Your task to perform on an android device: Set an alarm for 4pm Image 0: 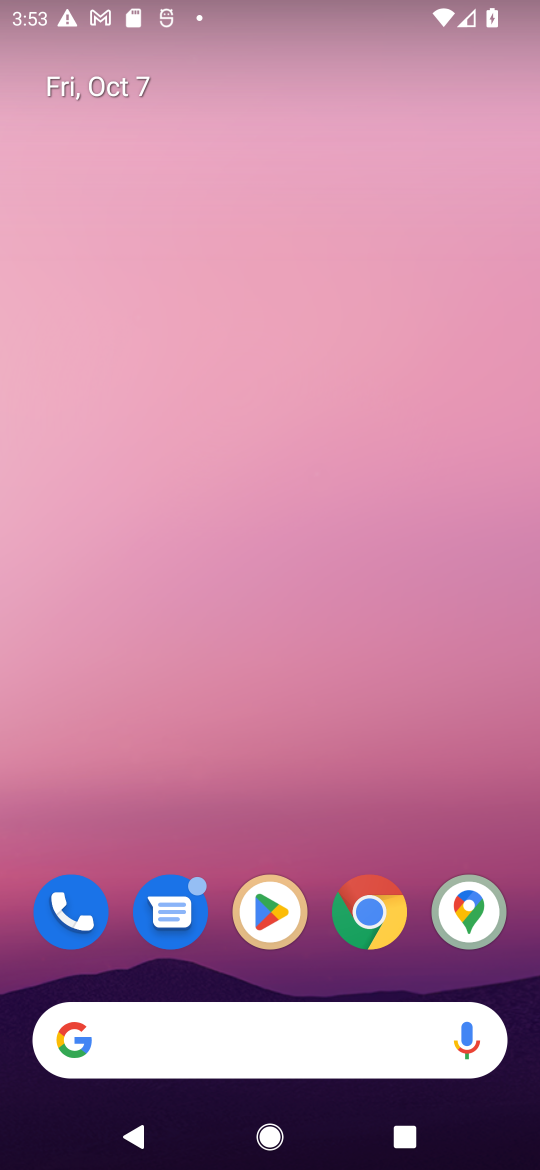
Step 0: drag from (269, 933) to (303, 328)
Your task to perform on an android device: Set an alarm for 4pm Image 1: 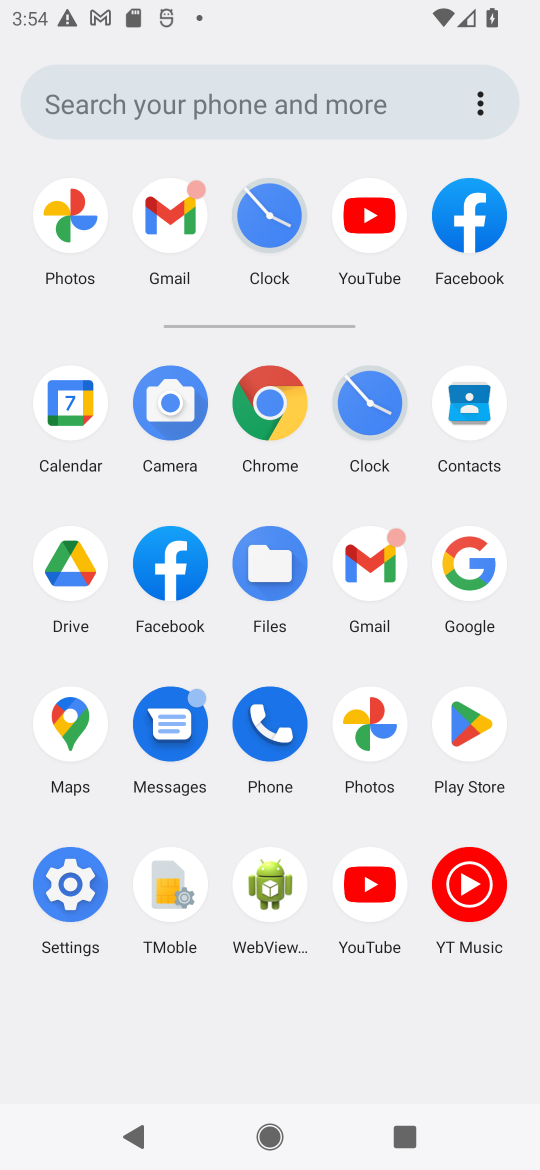
Step 1: click (361, 385)
Your task to perform on an android device: Set an alarm for 4pm Image 2: 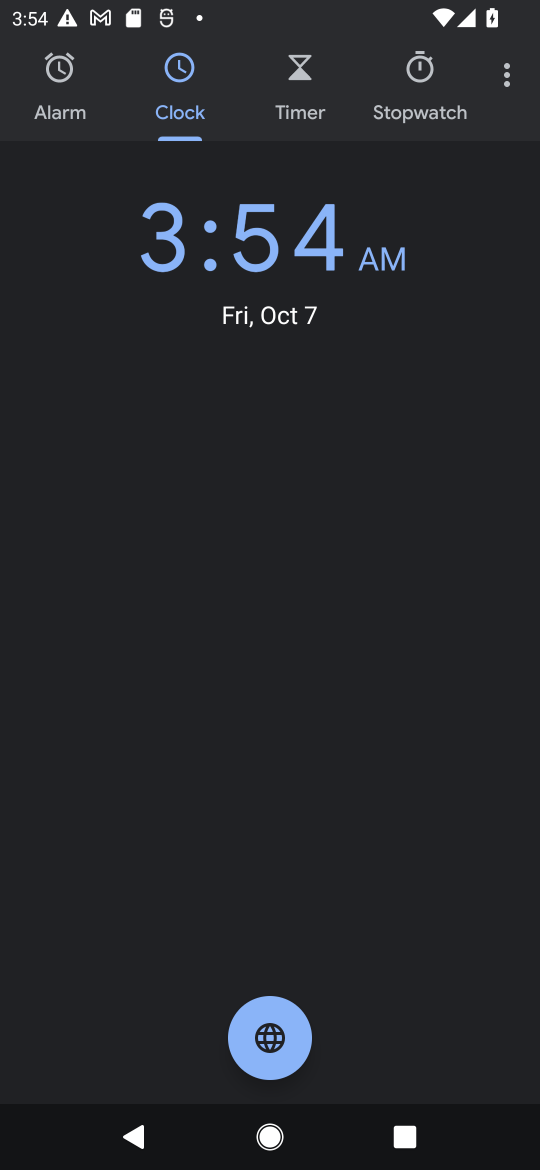
Step 2: click (52, 66)
Your task to perform on an android device: Set an alarm for 4pm Image 3: 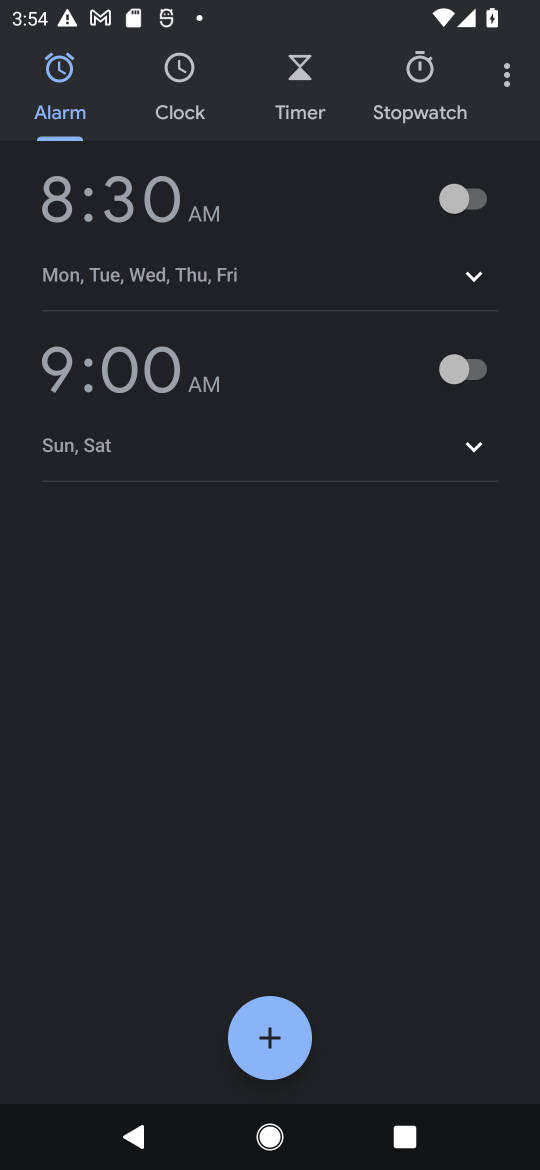
Step 3: click (270, 1019)
Your task to perform on an android device: Set an alarm for 4pm Image 4: 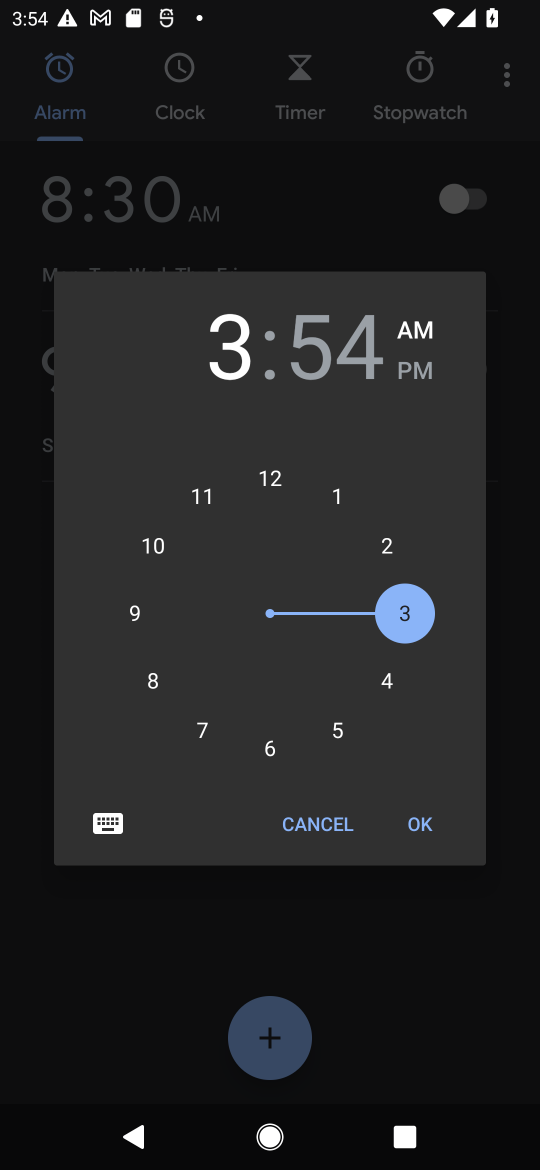
Step 4: click (378, 658)
Your task to perform on an android device: Set an alarm for 4pm Image 5: 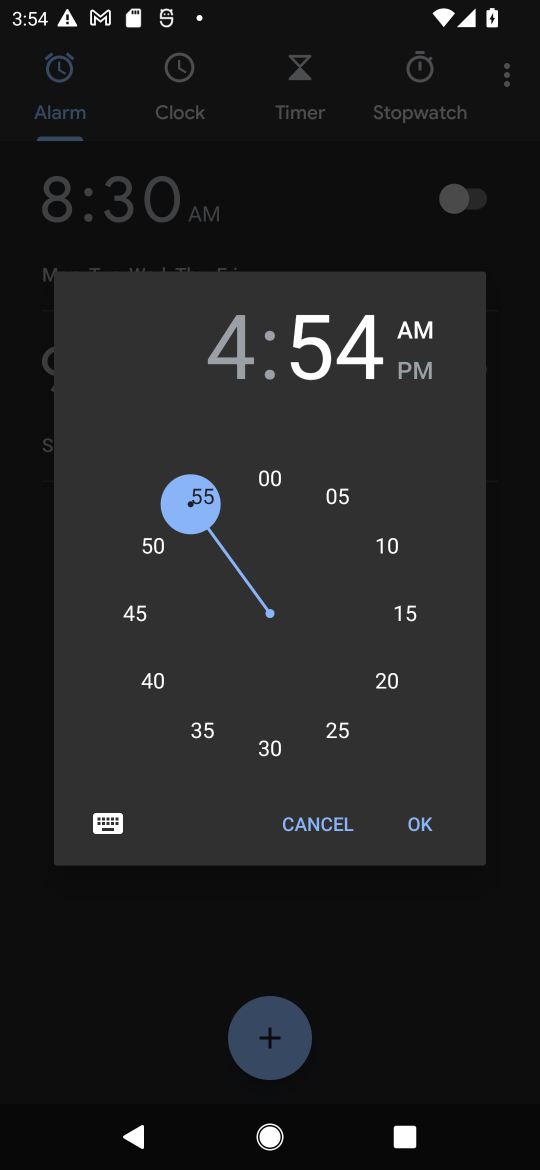
Step 5: click (423, 821)
Your task to perform on an android device: Set an alarm for 4pm Image 6: 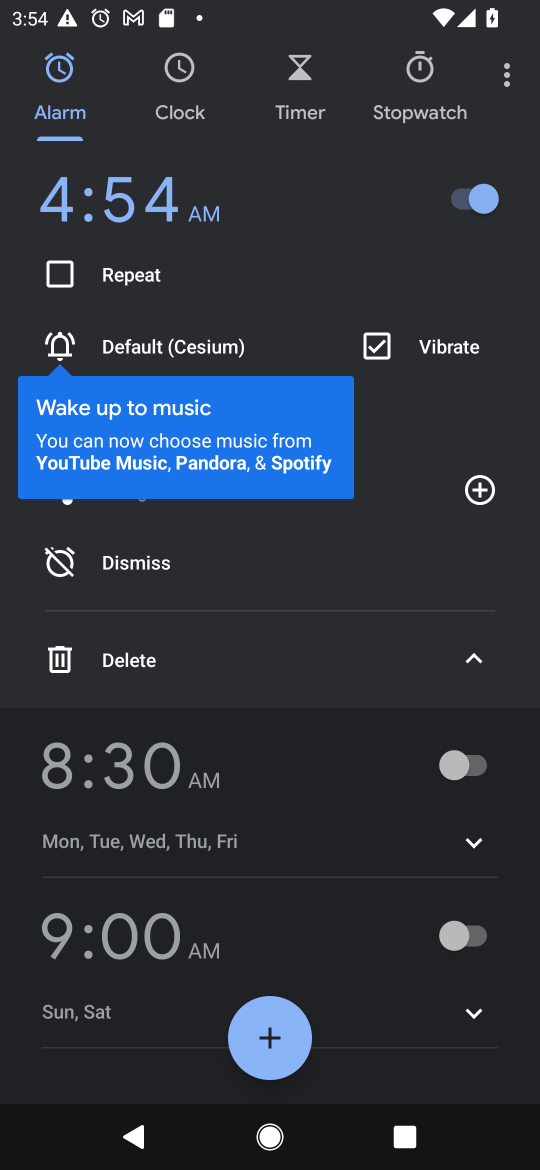
Step 6: click (446, 202)
Your task to perform on an android device: Set an alarm for 4pm Image 7: 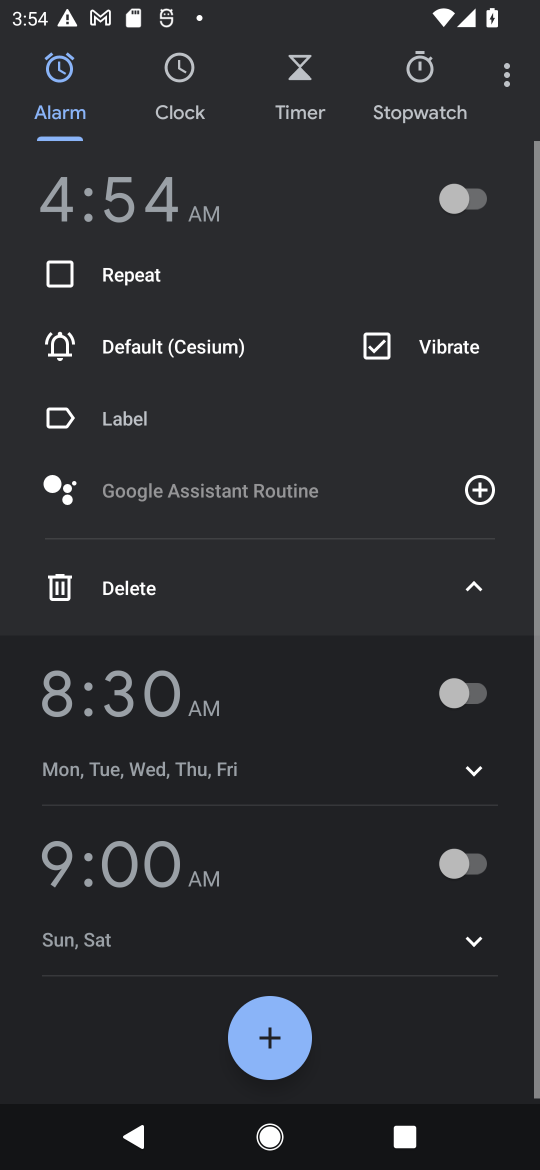
Step 7: click (107, 549)
Your task to perform on an android device: Set an alarm for 4pm Image 8: 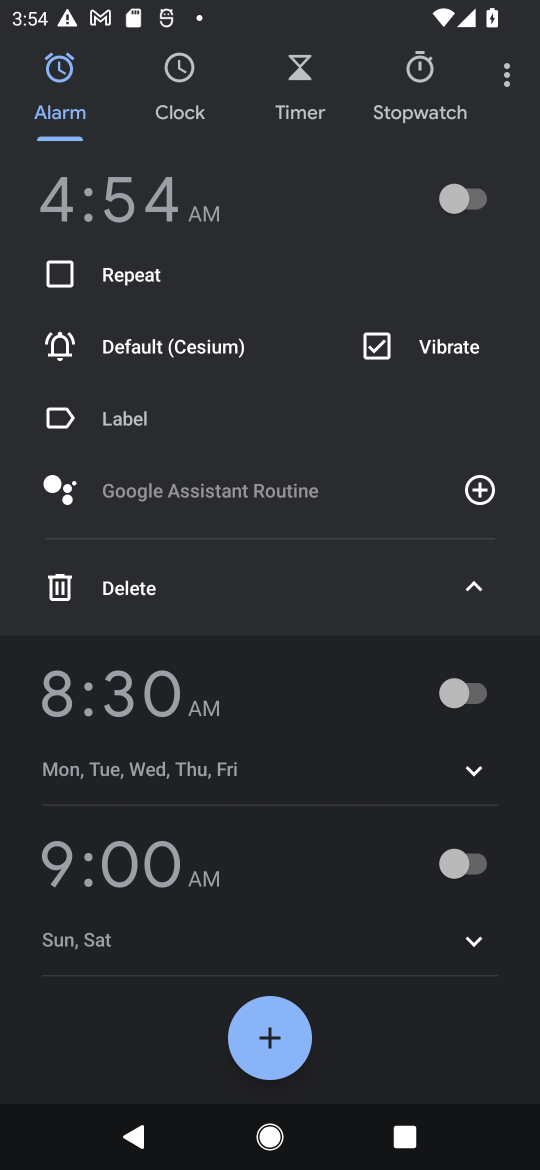
Step 8: click (118, 552)
Your task to perform on an android device: Set an alarm for 4pm Image 9: 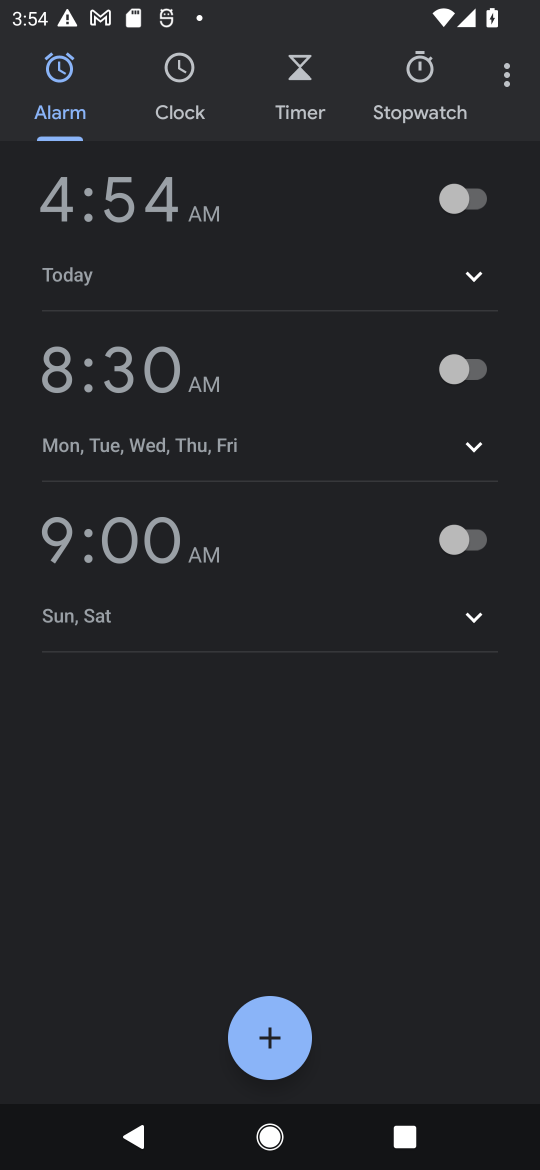
Step 9: click (245, 1026)
Your task to perform on an android device: Set an alarm for 4pm Image 10: 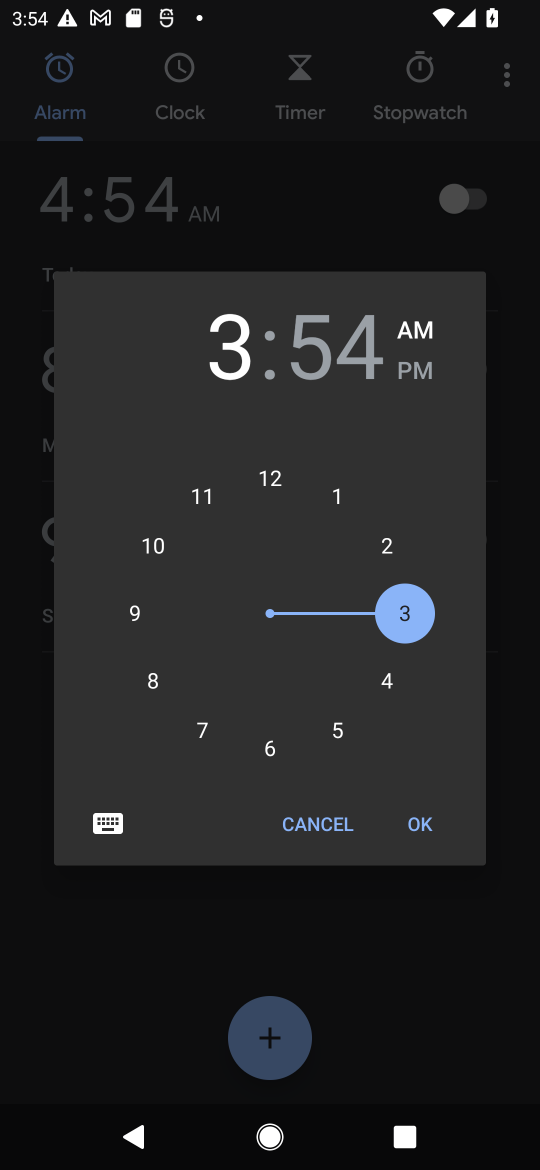
Step 10: click (90, 817)
Your task to perform on an android device: Set an alarm for 4pm Image 11: 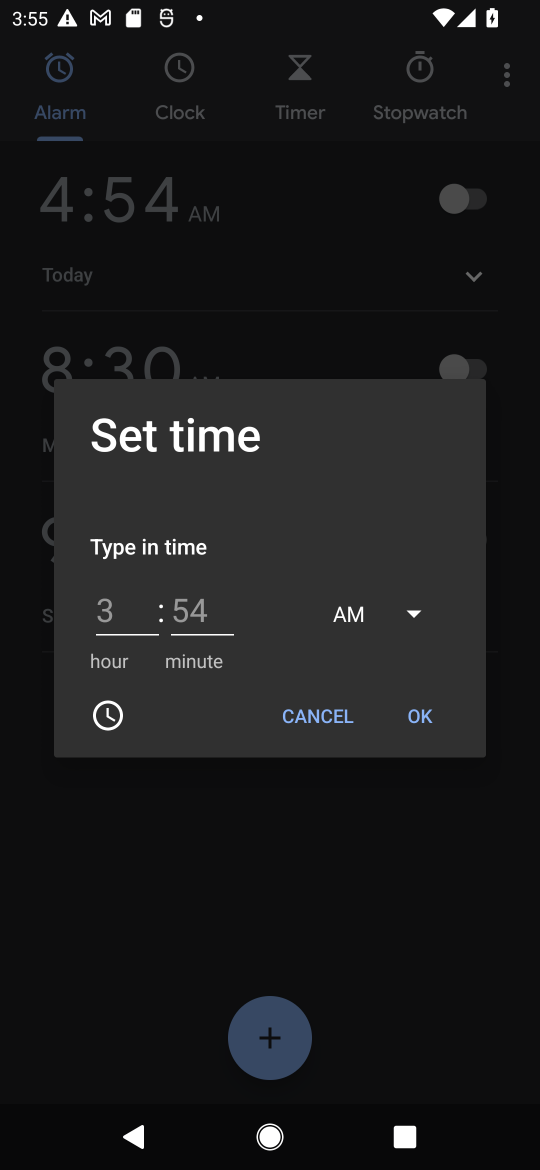
Step 11: drag from (121, 610) to (130, 558)
Your task to perform on an android device: Set an alarm for 4pm Image 12: 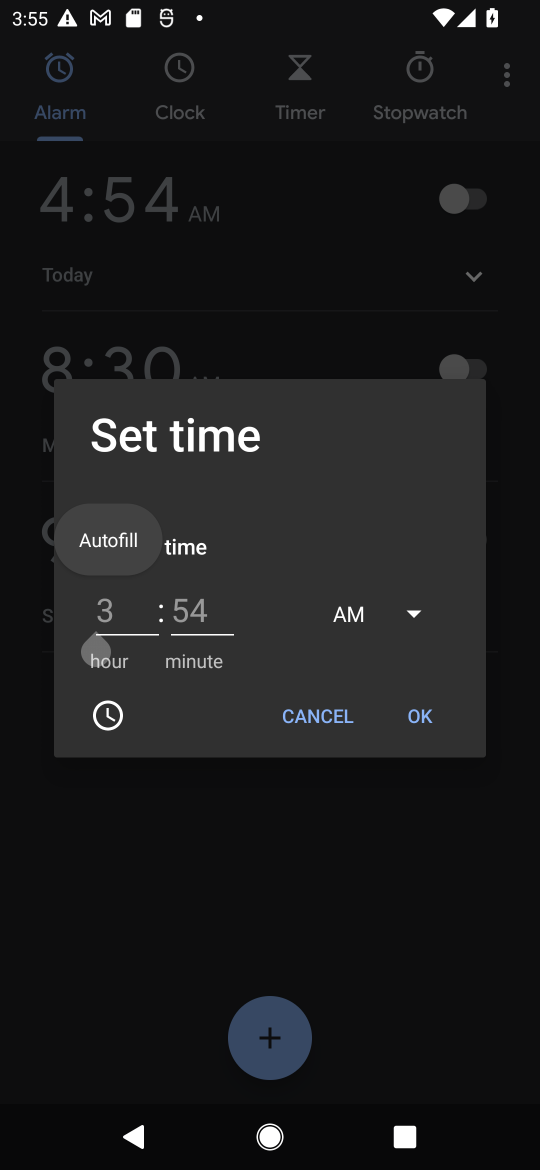
Step 12: click (104, 634)
Your task to perform on an android device: Set an alarm for 4pm Image 13: 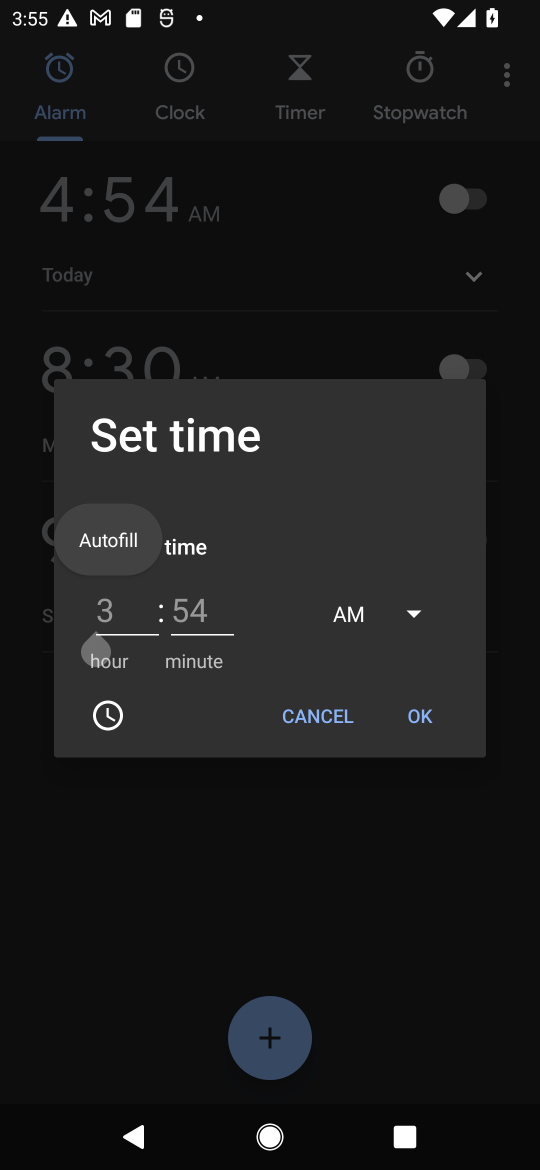
Step 13: click (137, 566)
Your task to perform on an android device: Set an alarm for 4pm Image 14: 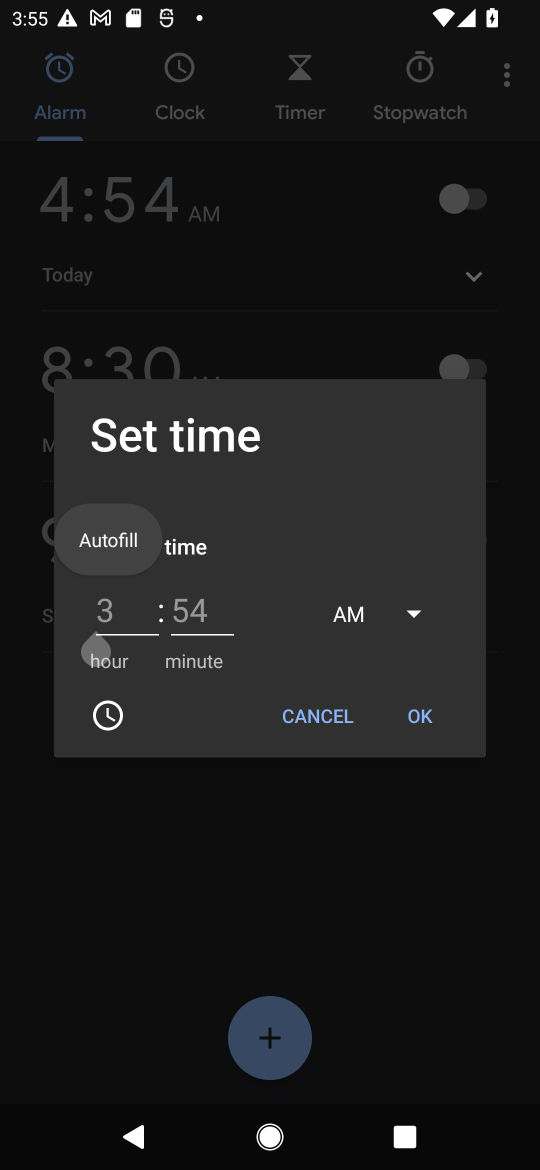
Step 14: click (201, 619)
Your task to perform on an android device: Set an alarm for 4pm Image 15: 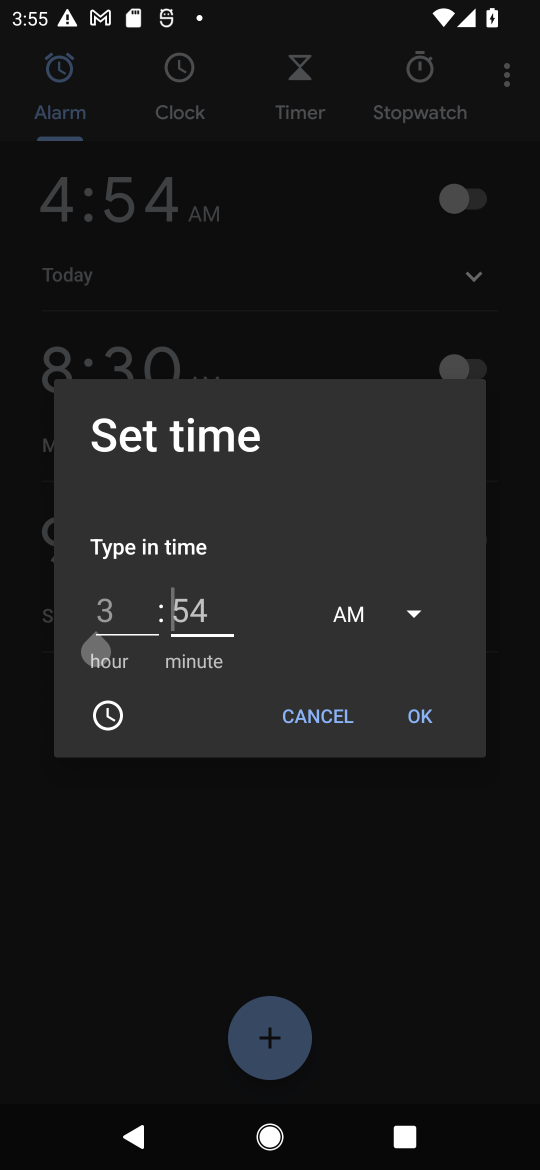
Step 15: click (207, 609)
Your task to perform on an android device: Set an alarm for 4pm Image 16: 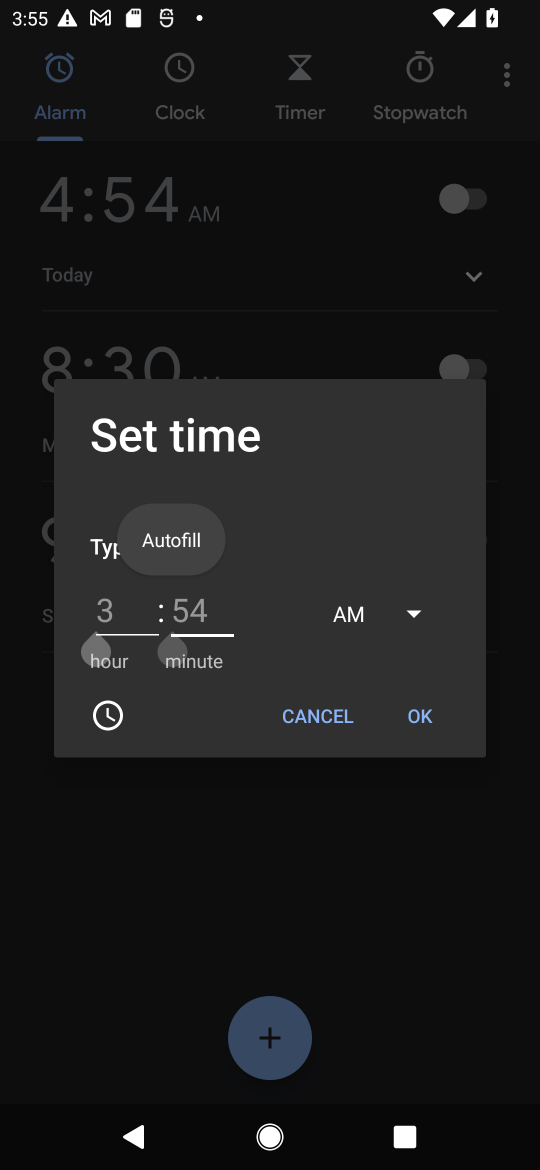
Step 16: click (400, 605)
Your task to perform on an android device: Set an alarm for 4pm Image 17: 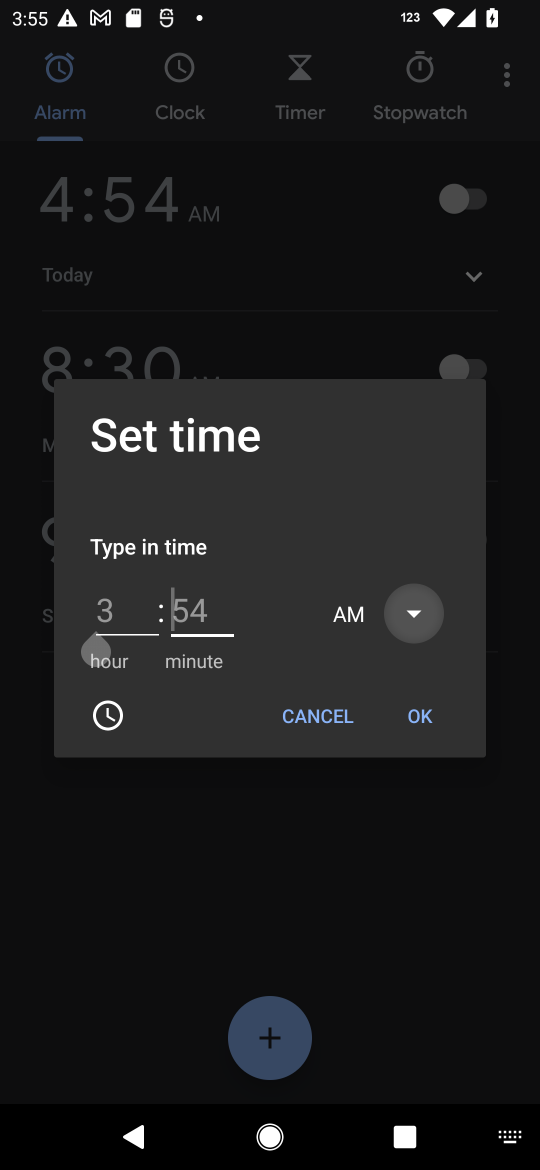
Step 17: click (422, 617)
Your task to perform on an android device: Set an alarm for 4pm Image 18: 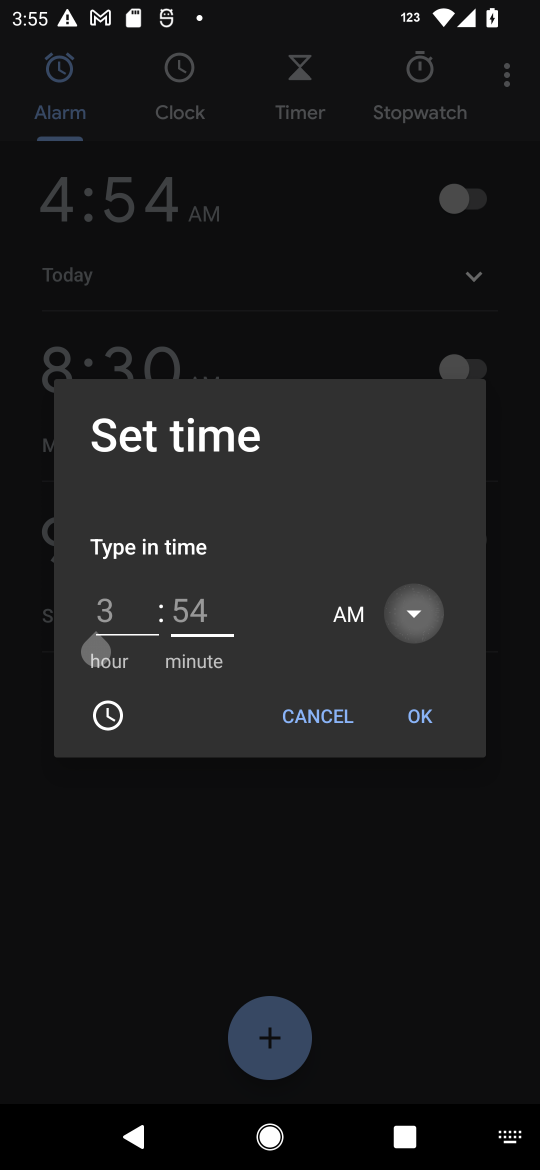
Step 18: click (422, 617)
Your task to perform on an android device: Set an alarm for 4pm Image 19: 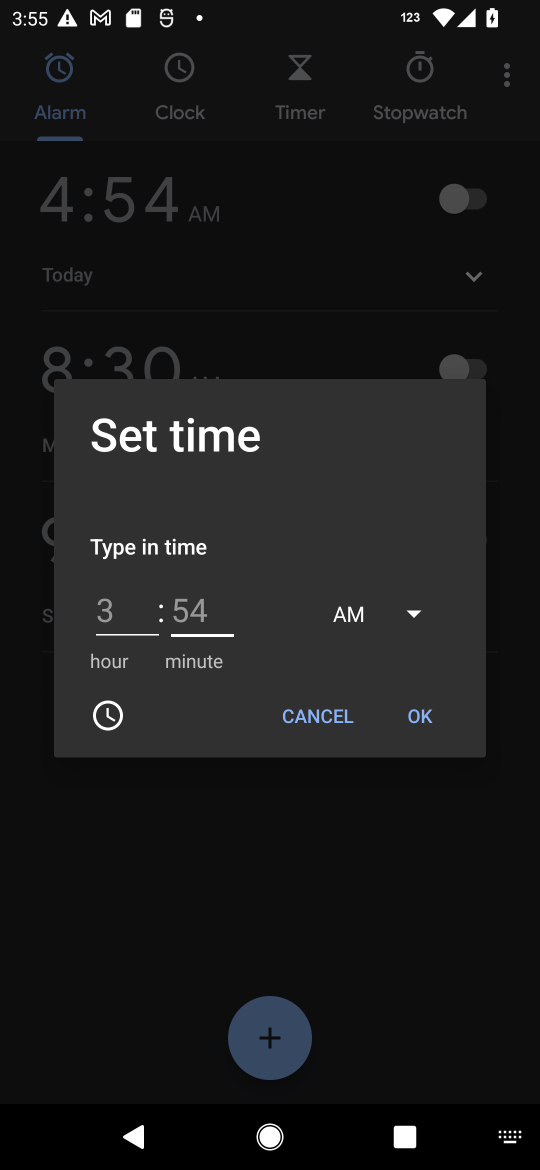
Step 19: click (421, 706)
Your task to perform on an android device: Set an alarm for 4pm Image 20: 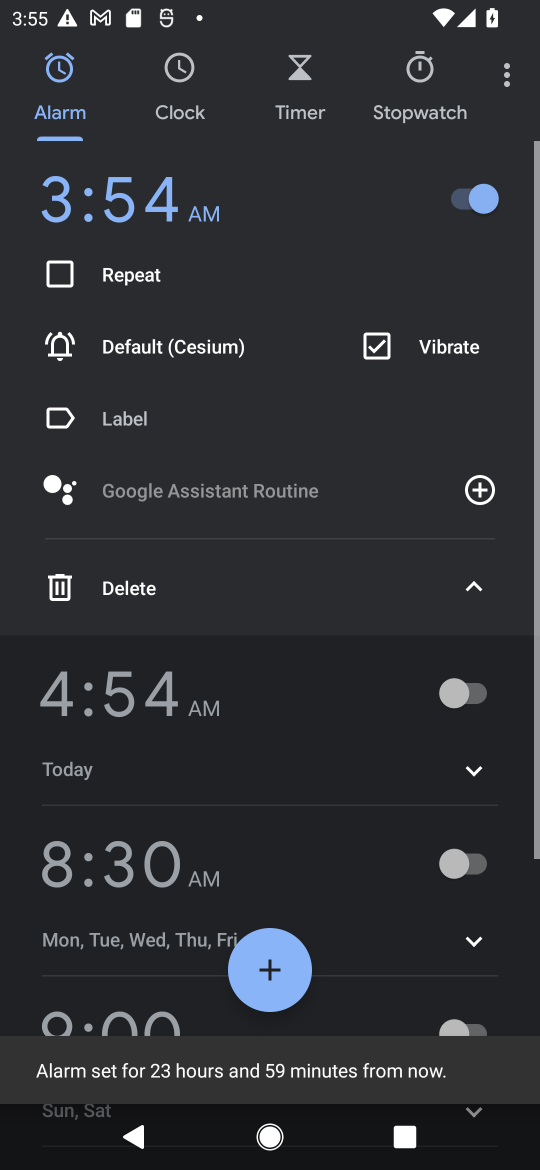
Step 20: click (400, 721)
Your task to perform on an android device: Set an alarm for 4pm Image 21: 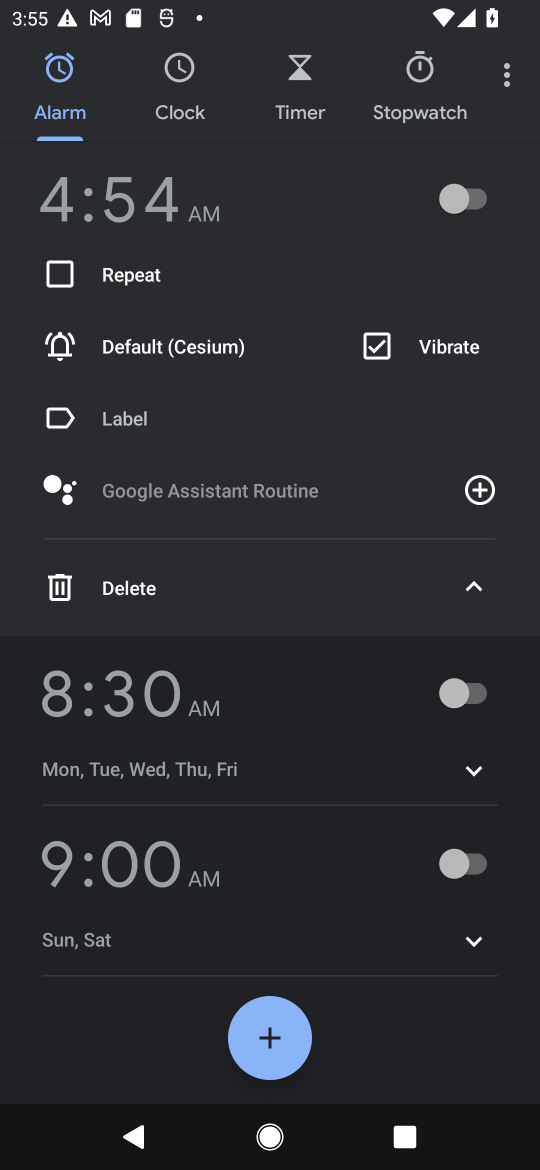
Step 21: click (109, 584)
Your task to perform on an android device: Set an alarm for 4pm Image 22: 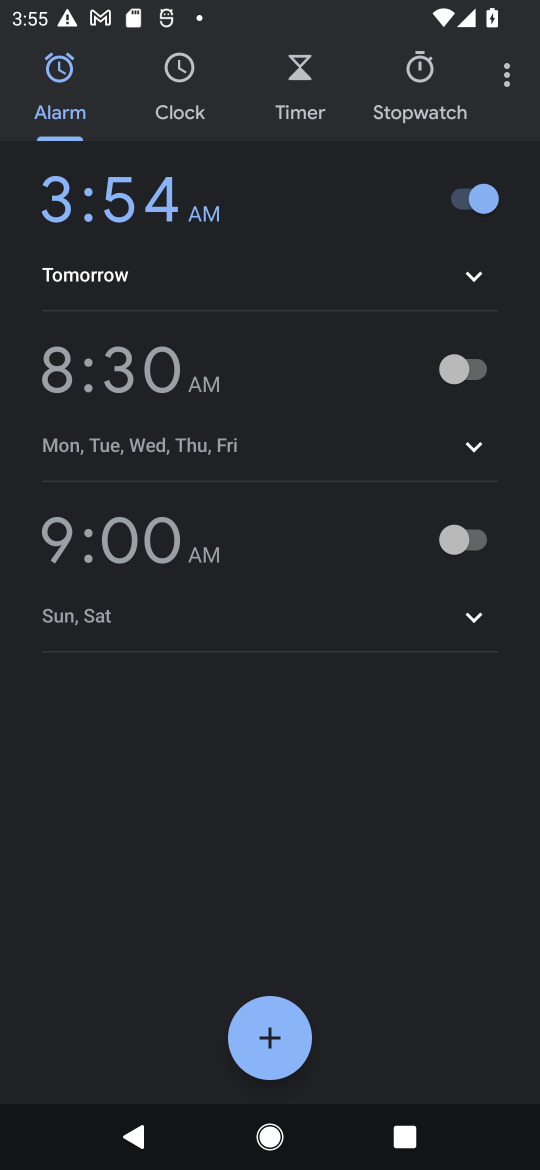
Step 22: click (282, 1004)
Your task to perform on an android device: Set an alarm for 4pm Image 23: 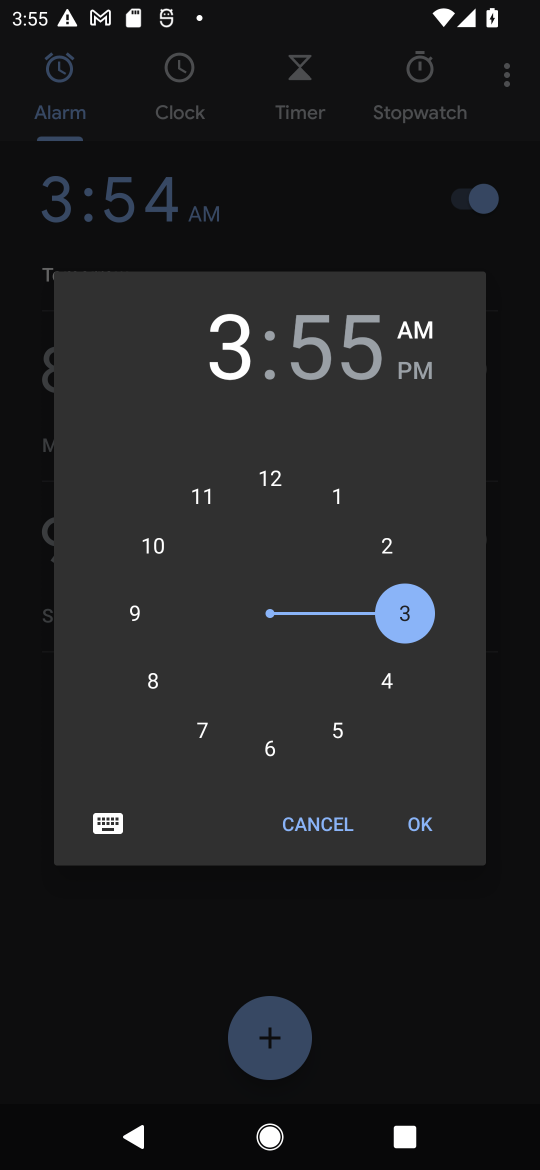
Step 23: click (387, 672)
Your task to perform on an android device: Set an alarm for 4pm Image 24: 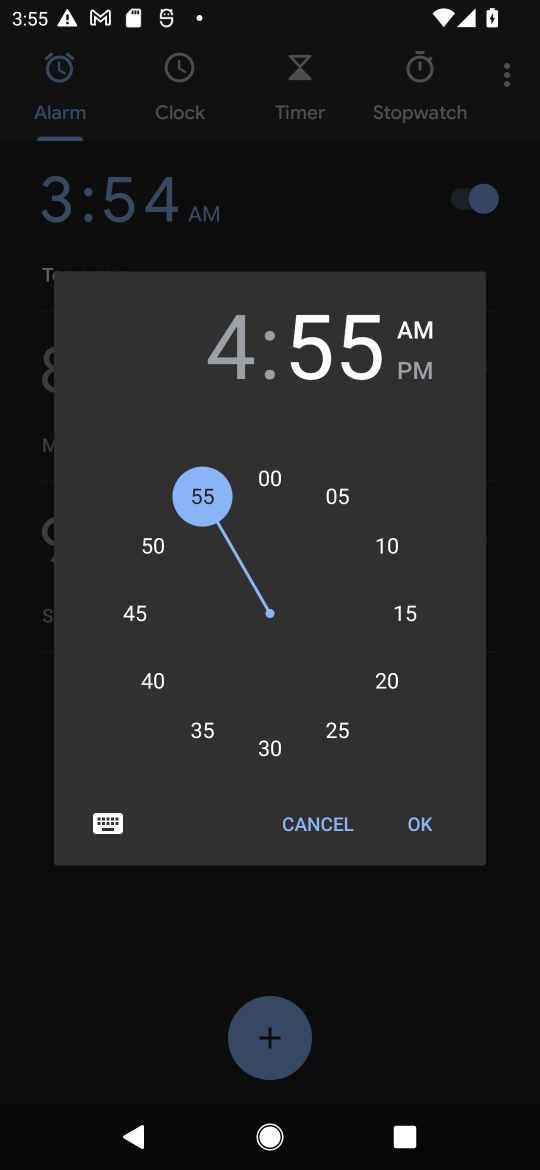
Step 24: click (372, 333)
Your task to perform on an android device: Set an alarm for 4pm Image 25: 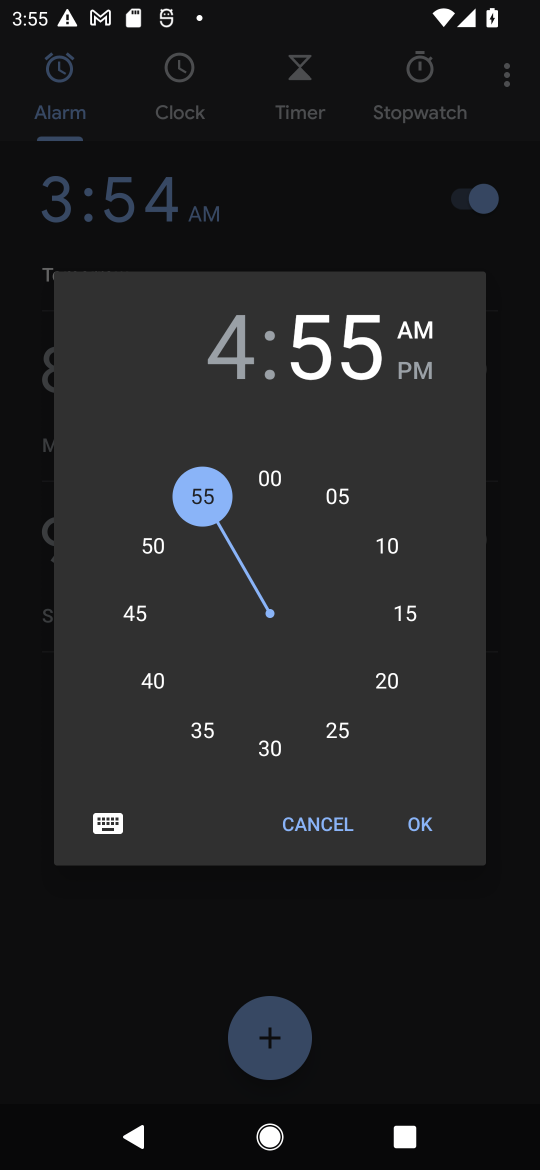
Step 25: click (271, 497)
Your task to perform on an android device: Set an alarm for 4pm Image 26: 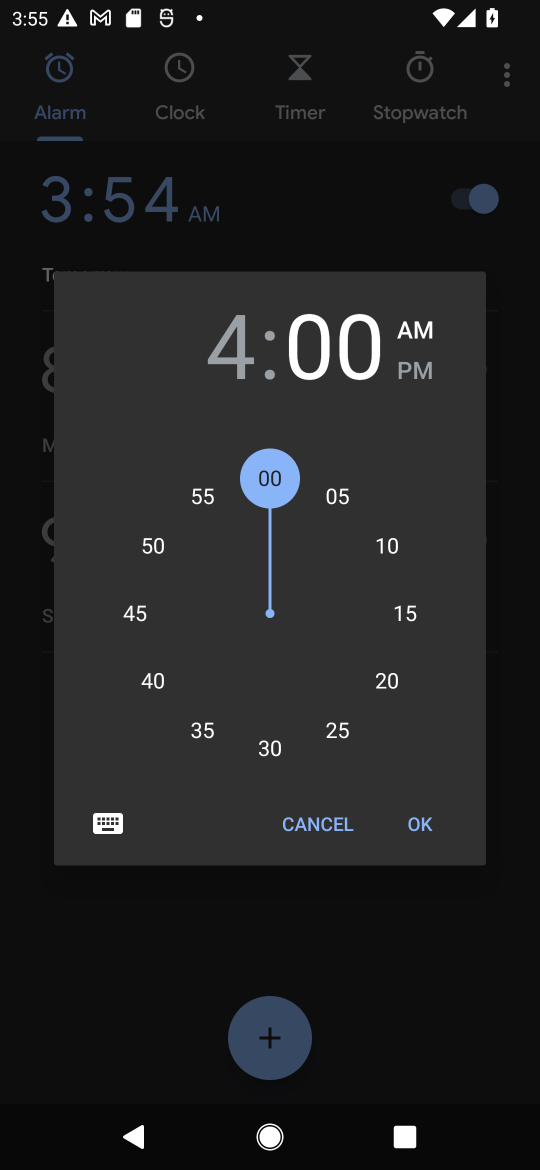
Step 26: click (426, 836)
Your task to perform on an android device: Set an alarm for 4pm Image 27: 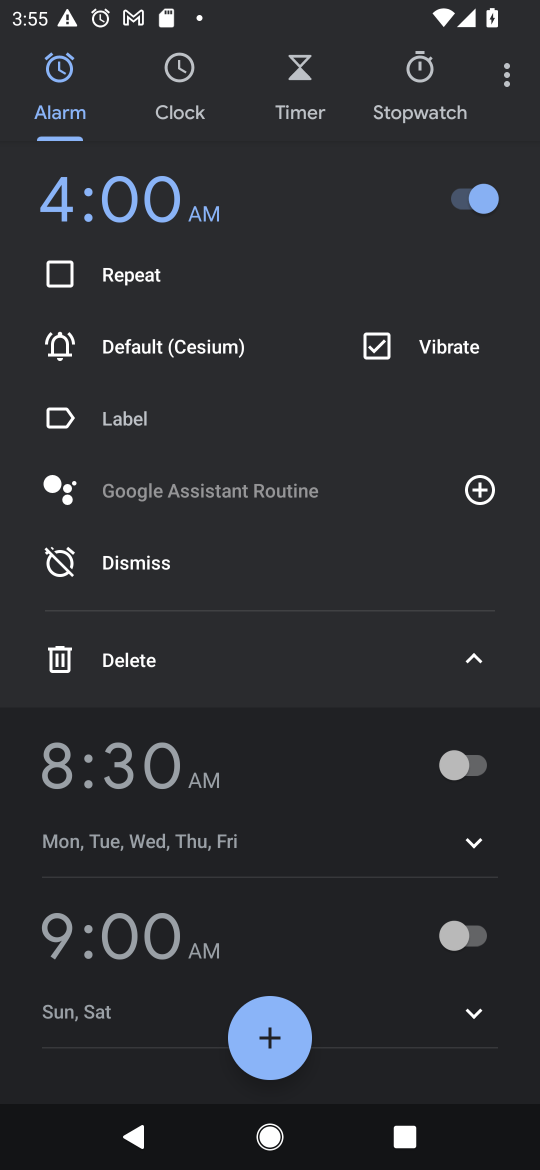
Step 27: click (344, 201)
Your task to perform on an android device: Set an alarm for 4pm Image 28: 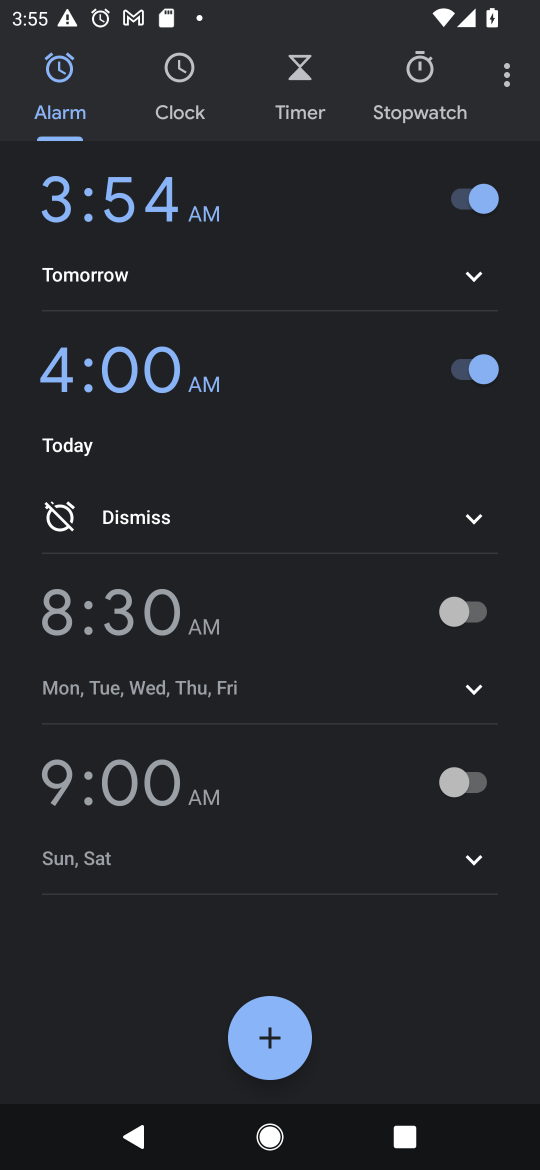
Step 28: click (451, 216)
Your task to perform on an android device: Set an alarm for 4pm Image 29: 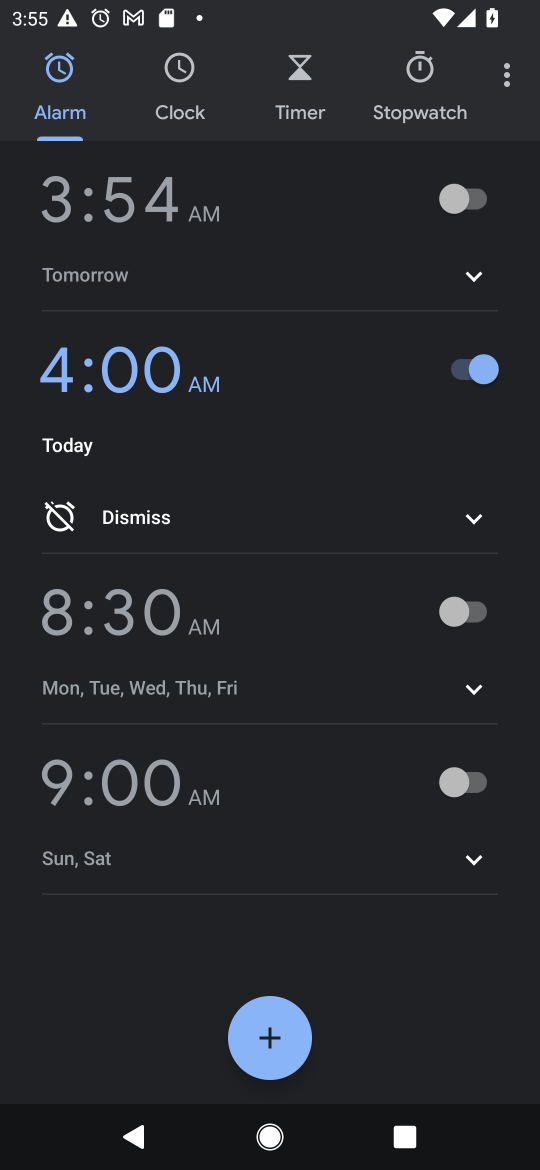
Step 29: task complete